Your task to perform on an android device: Is it going to rain today? Image 0: 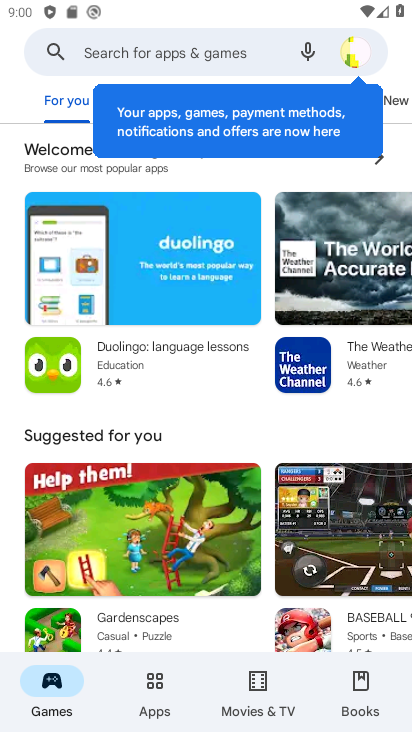
Step 0: press home button
Your task to perform on an android device: Is it going to rain today? Image 1: 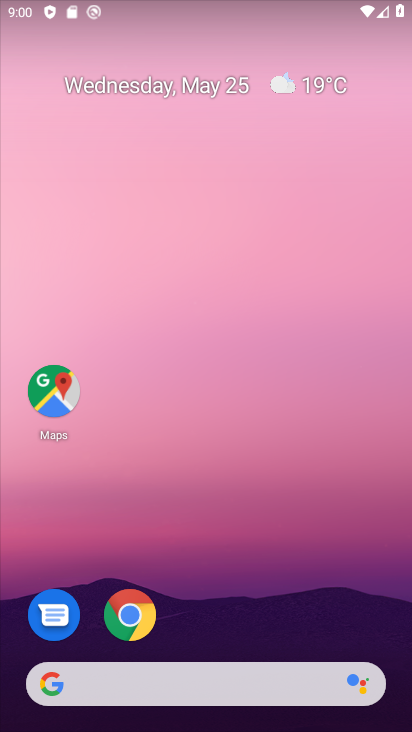
Step 1: drag from (274, 695) to (354, 64)
Your task to perform on an android device: Is it going to rain today? Image 2: 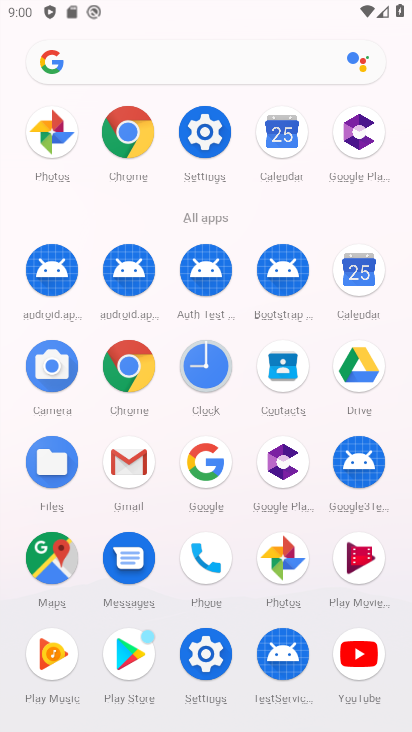
Step 2: click (242, 74)
Your task to perform on an android device: Is it going to rain today? Image 3: 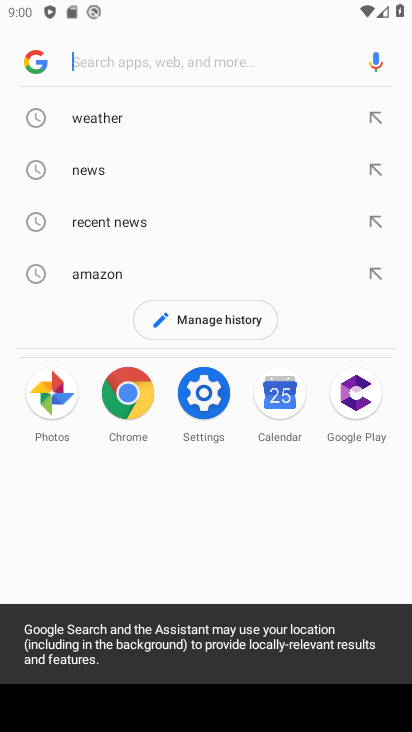
Step 3: click (113, 124)
Your task to perform on an android device: Is it going to rain today? Image 4: 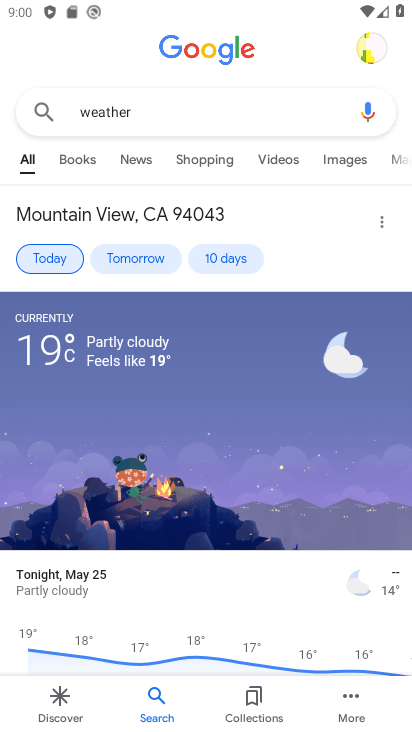
Step 4: task complete